Your task to perform on an android device: toggle wifi Image 0: 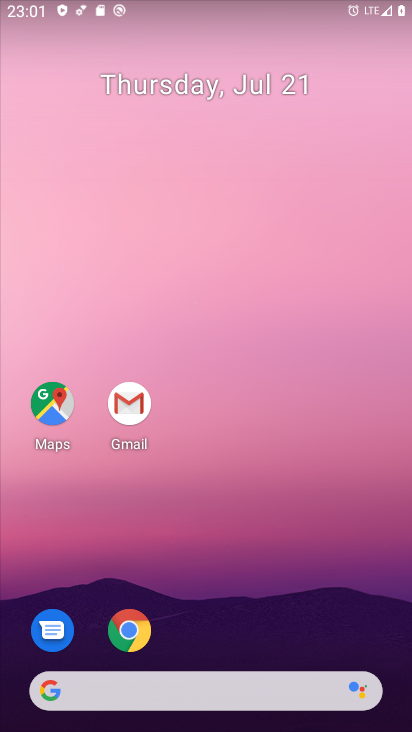
Step 0: drag from (310, 606) to (223, 166)
Your task to perform on an android device: toggle wifi Image 1: 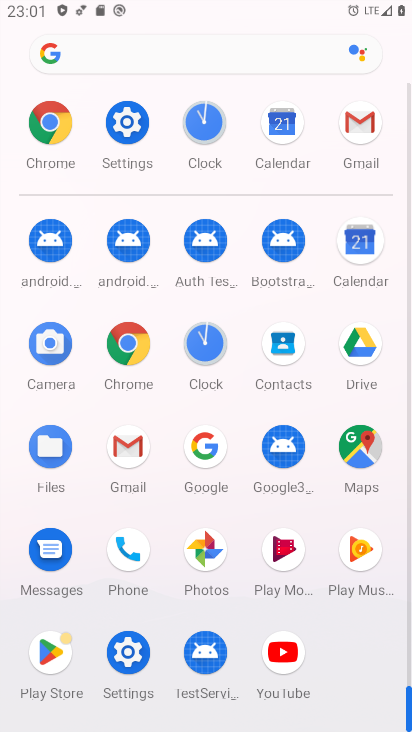
Step 1: click (117, 126)
Your task to perform on an android device: toggle wifi Image 2: 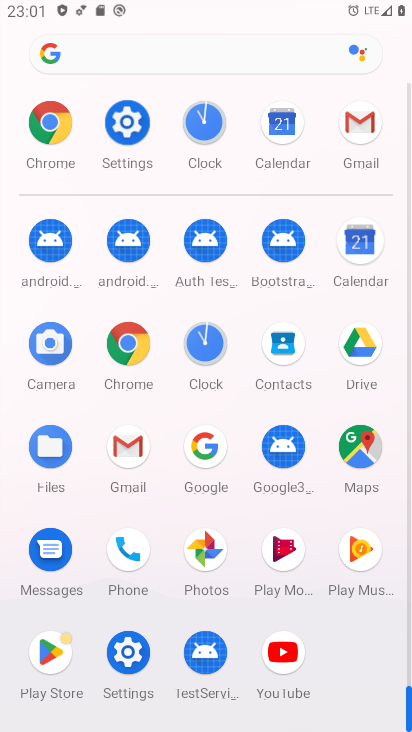
Step 2: click (127, 125)
Your task to perform on an android device: toggle wifi Image 3: 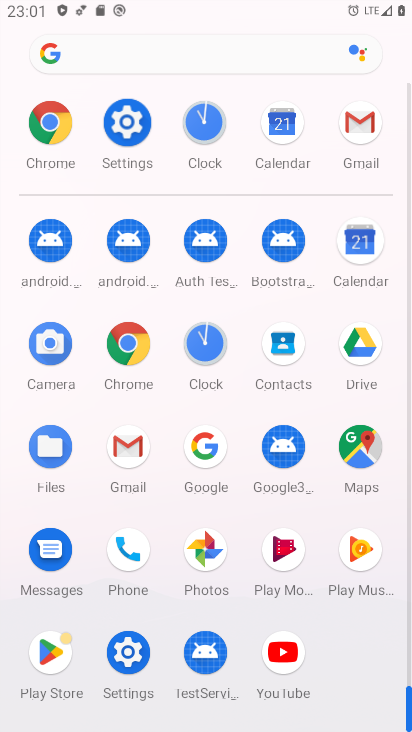
Step 3: click (129, 124)
Your task to perform on an android device: toggle wifi Image 4: 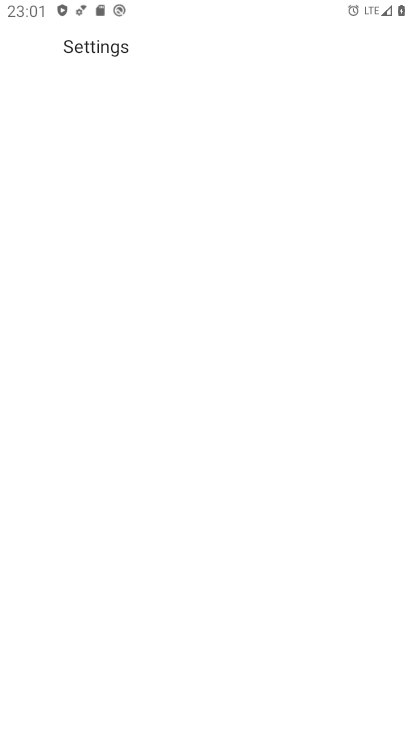
Step 4: click (130, 124)
Your task to perform on an android device: toggle wifi Image 5: 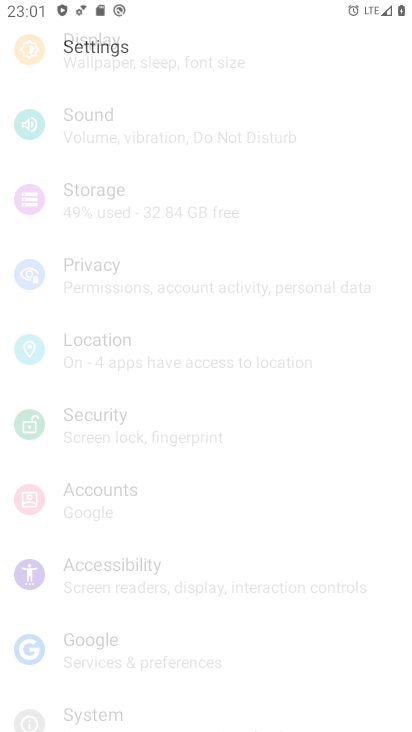
Step 5: click (132, 123)
Your task to perform on an android device: toggle wifi Image 6: 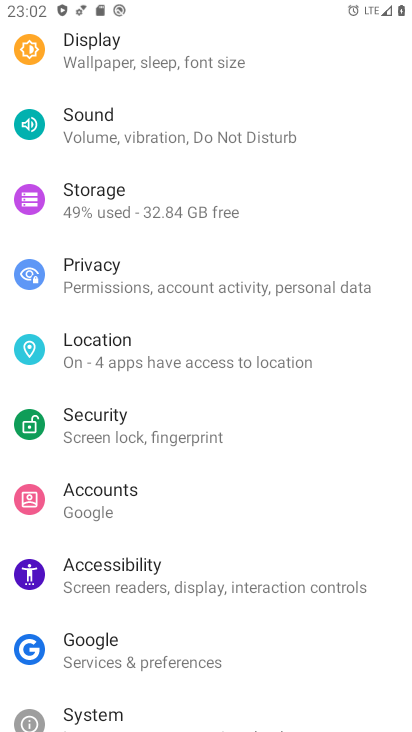
Step 6: drag from (149, 135) to (142, 312)
Your task to perform on an android device: toggle wifi Image 7: 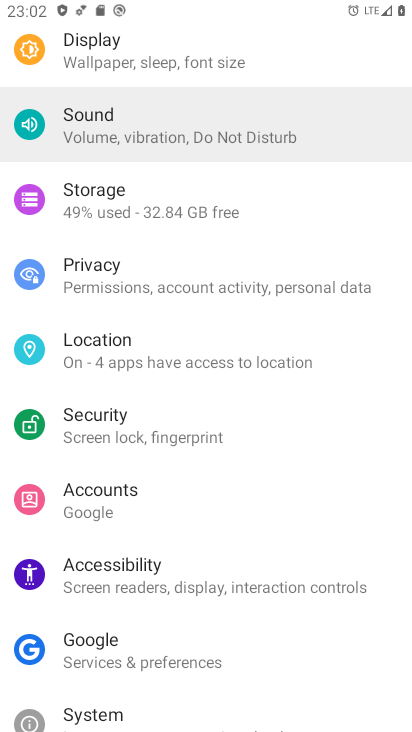
Step 7: drag from (141, 219) to (159, 421)
Your task to perform on an android device: toggle wifi Image 8: 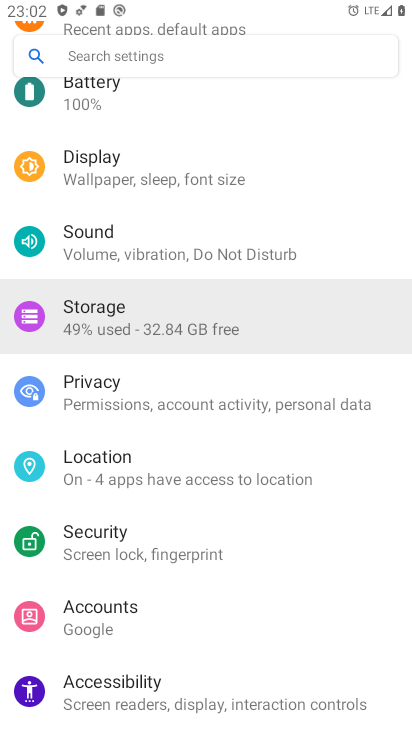
Step 8: drag from (161, 288) to (210, 524)
Your task to perform on an android device: toggle wifi Image 9: 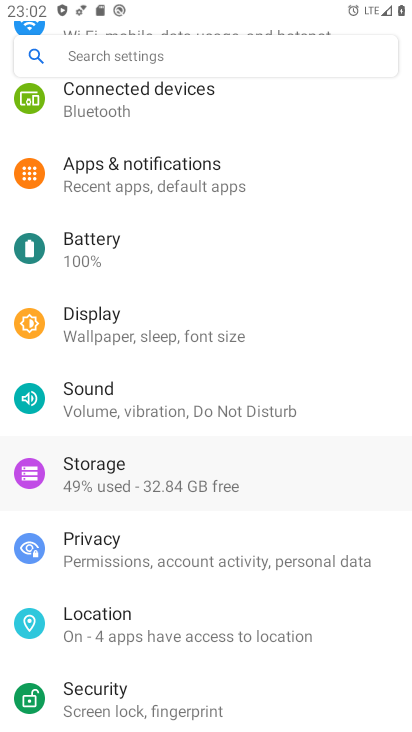
Step 9: drag from (199, 212) to (217, 509)
Your task to perform on an android device: toggle wifi Image 10: 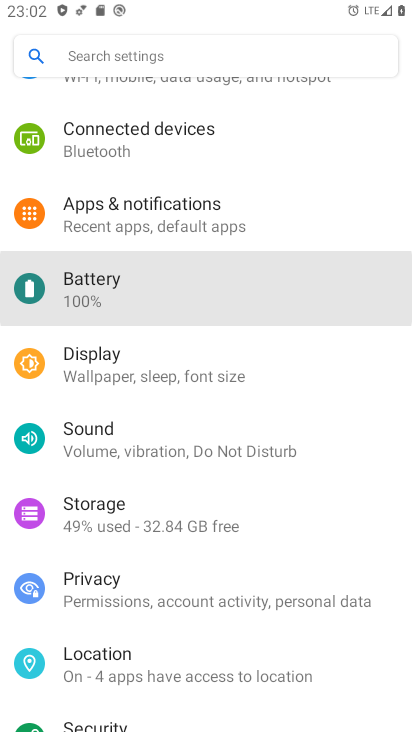
Step 10: drag from (164, 205) to (175, 465)
Your task to perform on an android device: toggle wifi Image 11: 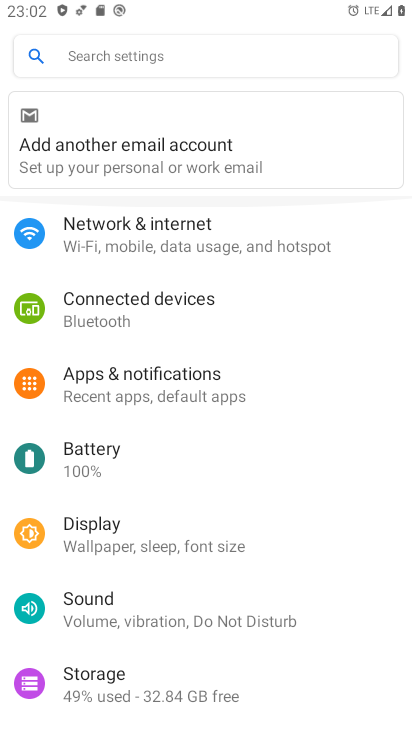
Step 11: drag from (159, 238) to (160, 579)
Your task to perform on an android device: toggle wifi Image 12: 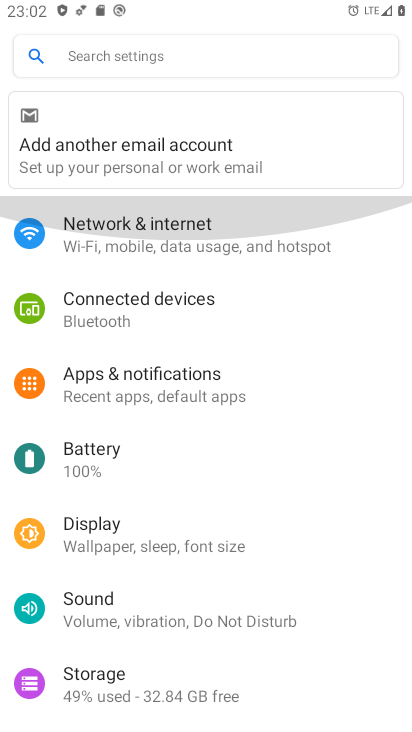
Step 12: drag from (163, 214) to (144, 463)
Your task to perform on an android device: toggle wifi Image 13: 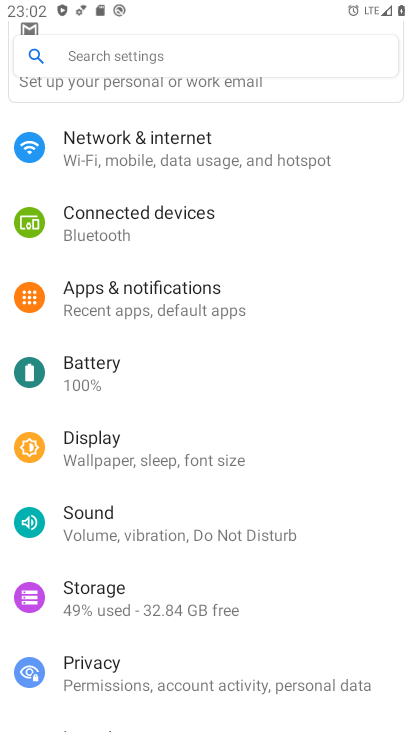
Step 13: click (156, 154)
Your task to perform on an android device: toggle wifi Image 14: 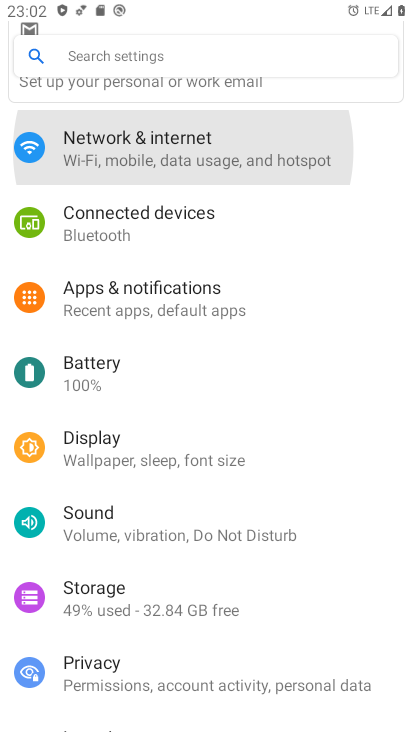
Step 14: click (159, 154)
Your task to perform on an android device: toggle wifi Image 15: 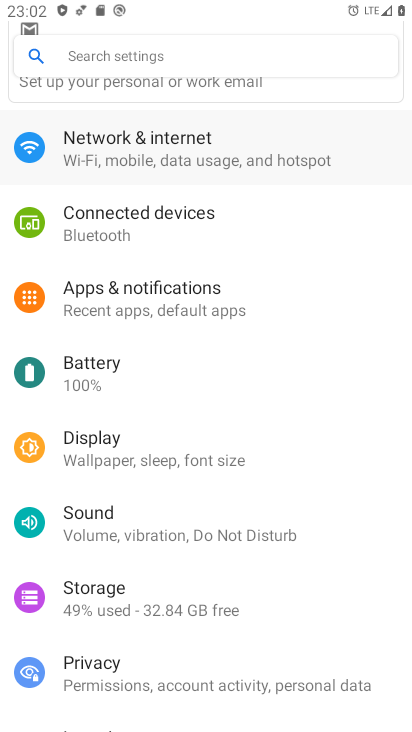
Step 15: click (159, 156)
Your task to perform on an android device: toggle wifi Image 16: 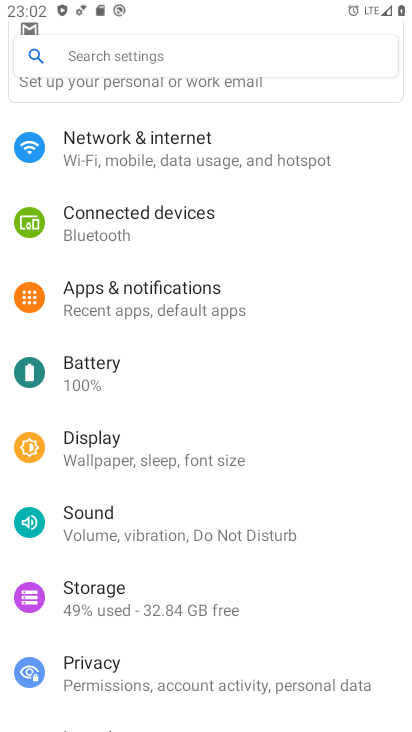
Step 16: click (160, 157)
Your task to perform on an android device: toggle wifi Image 17: 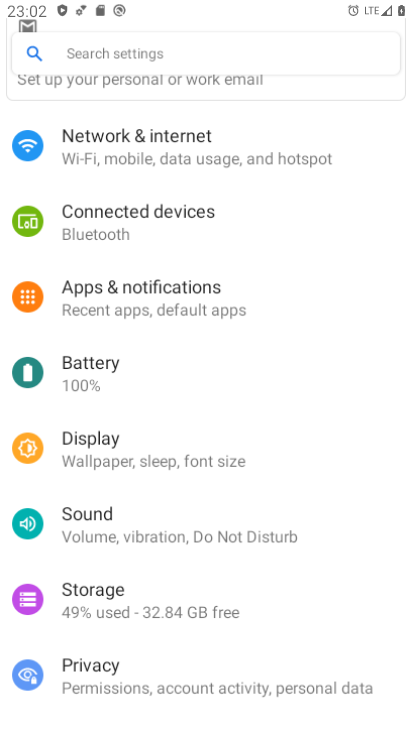
Step 17: click (160, 157)
Your task to perform on an android device: toggle wifi Image 18: 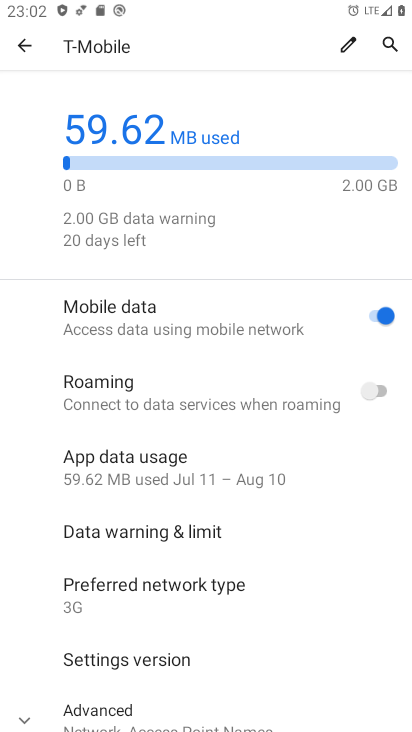
Step 18: click (17, 43)
Your task to perform on an android device: toggle wifi Image 19: 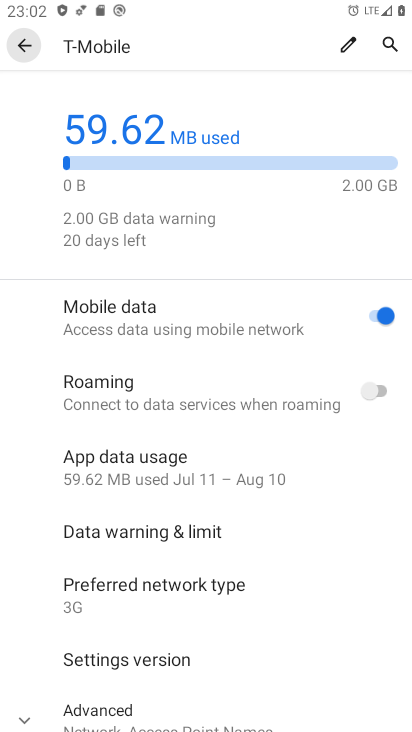
Step 19: click (15, 41)
Your task to perform on an android device: toggle wifi Image 20: 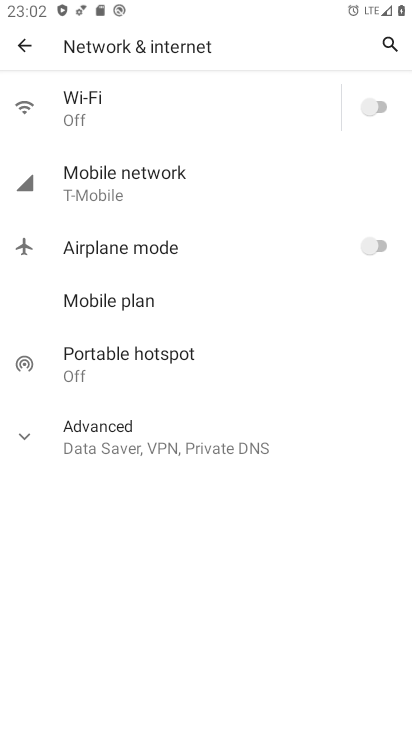
Step 20: click (370, 106)
Your task to perform on an android device: toggle wifi Image 21: 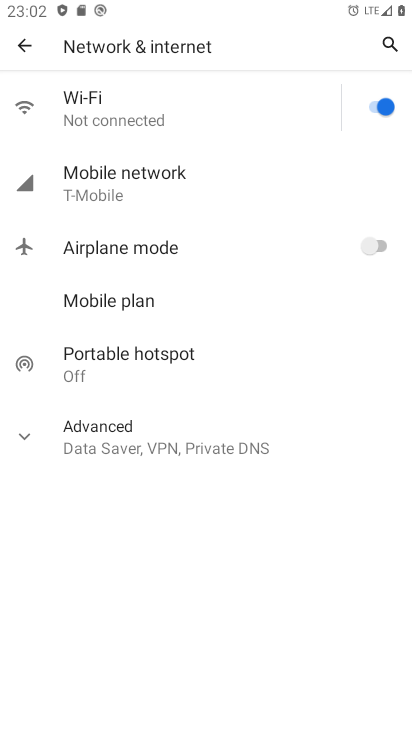
Step 21: task complete